Your task to perform on an android device: Is it going to rain tomorrow? Image 0: 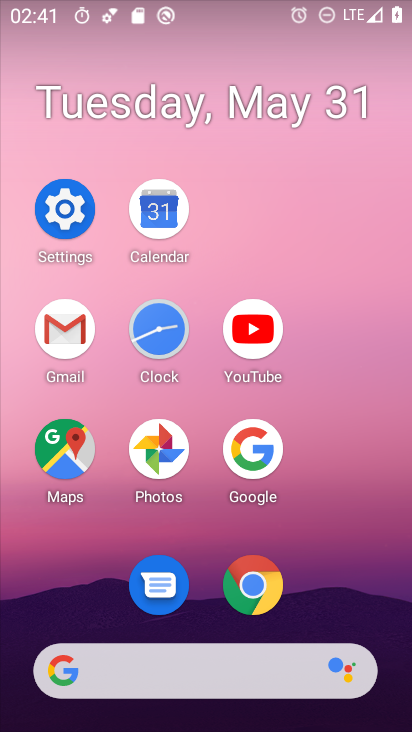
Step 0: click (274, 458)
Your task to perform on an android device: Is it going to rain tomorrow? Image 1: 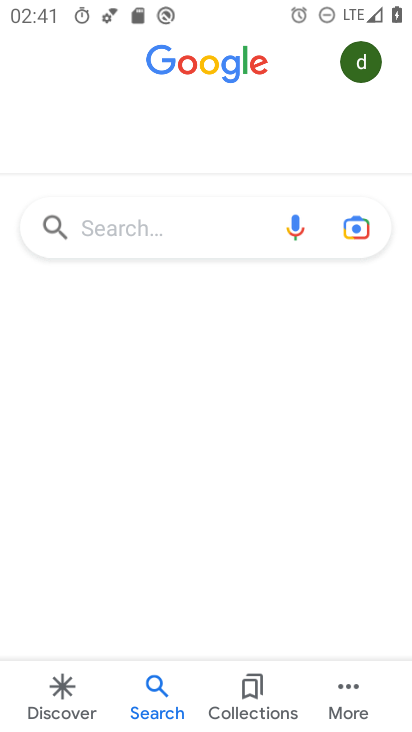
Step 1: click (182, 238)
Your task to perform on an android device: Is it going to rain tomorrow? Image 2: 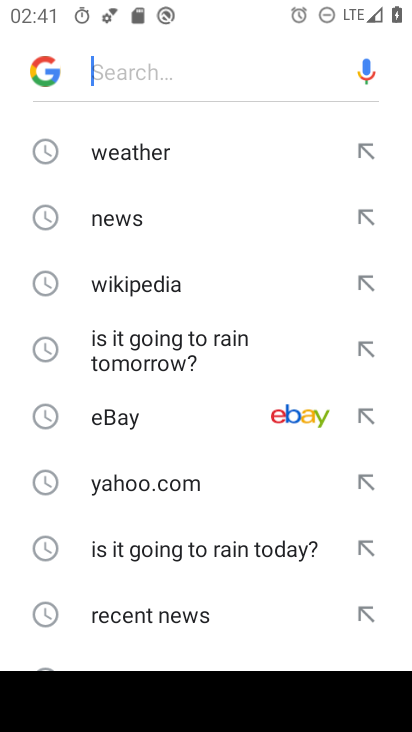
Step 2: click (148, 168)
Your task to perform on an android device: Is it going to rain tomorrow? Image 3: 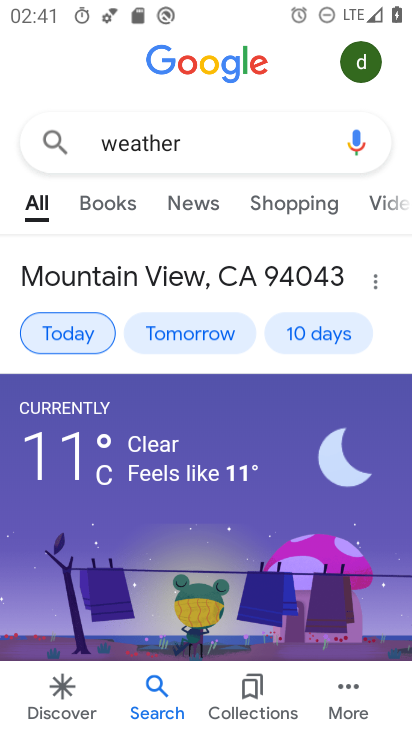
Step 3: click (205, 336)
Your task to perform on an android device: Is it going to rain tomorrow? Image 4: 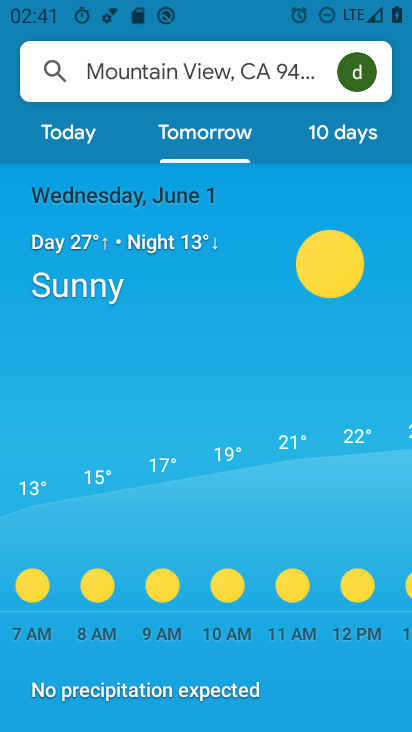
Step 4: task complete